Your task to perform on an android device: Go to Maps Image 0: 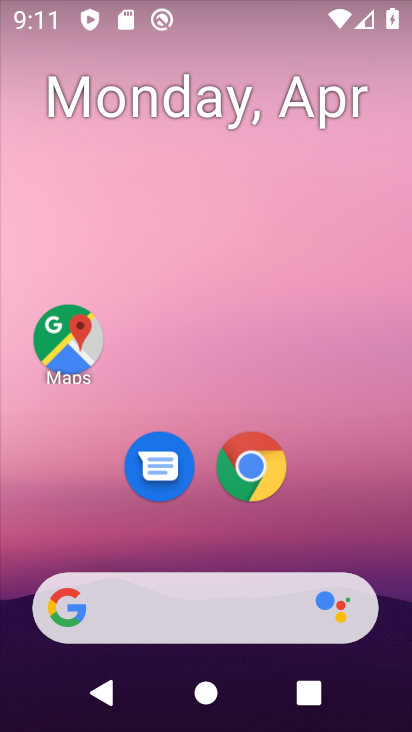
Step 0: click (64, 342)
Your task to perform on an android device: Go to Maps Image 1: 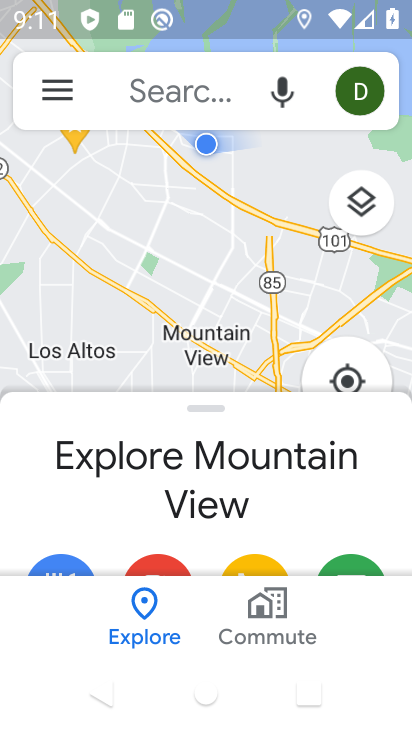
Step 1: task complete